Your task to perform on an android device: all mails in gmail Image 0: 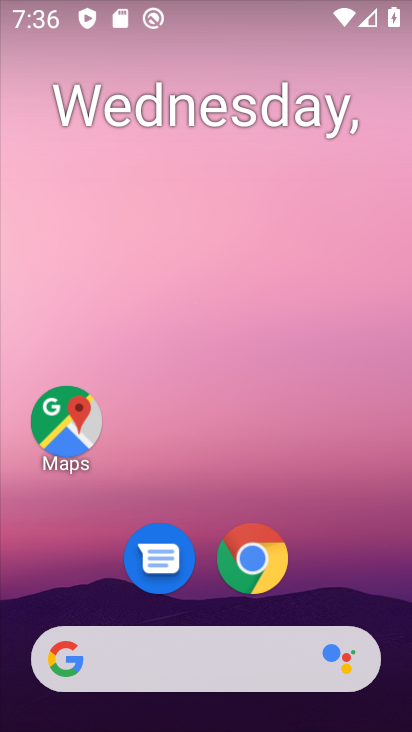
Step 0: drag from (206, 132) to (207, 38)
Your task to perform on an android device: all mails in gmail Image 1: 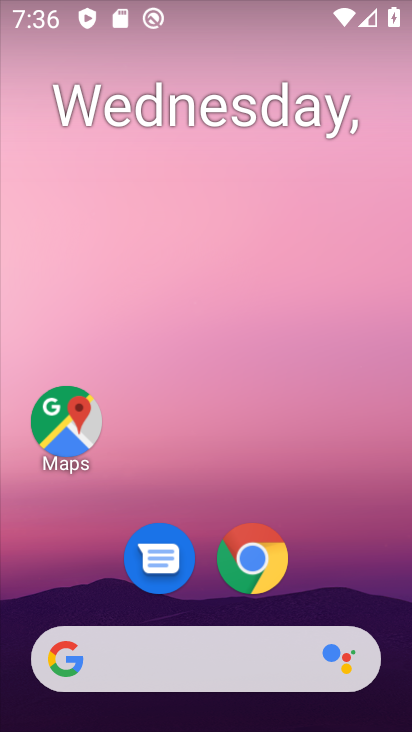
Step 1: drag from (209, 582) to (220, 99)
Your task to perform on an android device: all mails in gmail Image 2: 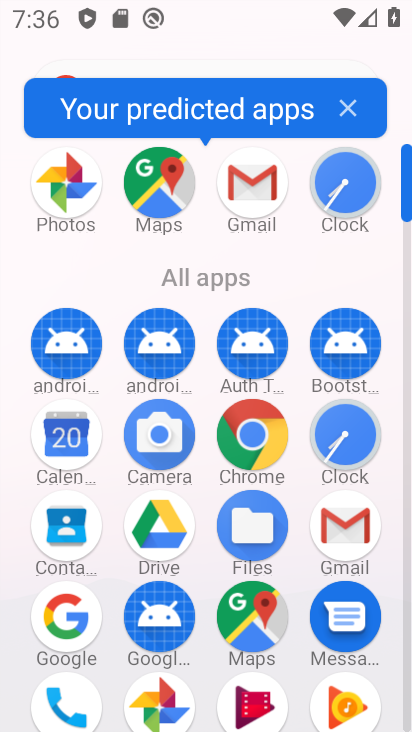
Step 2: click (246, 171)
Your task to perform on an android device: all mails in gmail Image 3: 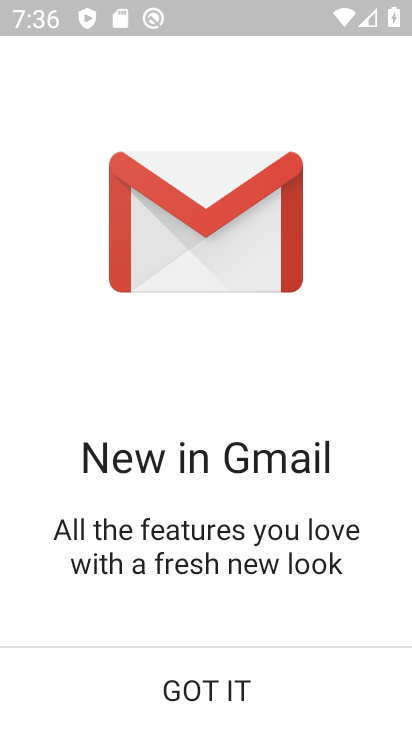
Step 3: click (206, 697)
Your task to perform on an android device: all mails in gmail Image 4: 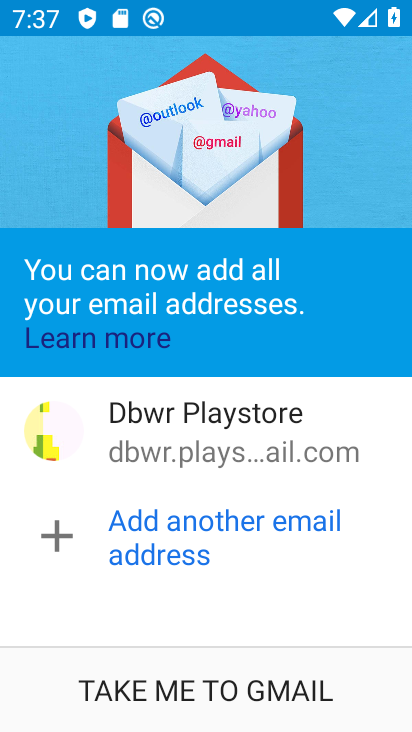
Step 4: click (216, 705)
Your task to perform on an android device: all mails in gmail Image 5: 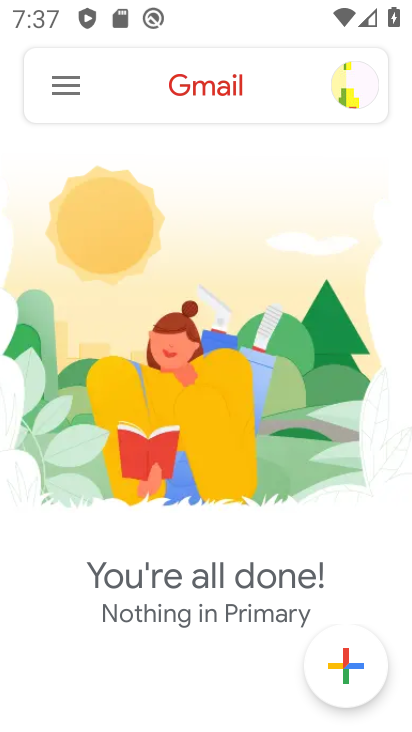
Step 5: click (63, 90)
Your task to perform on an android device: all mails in gmail Image 6: 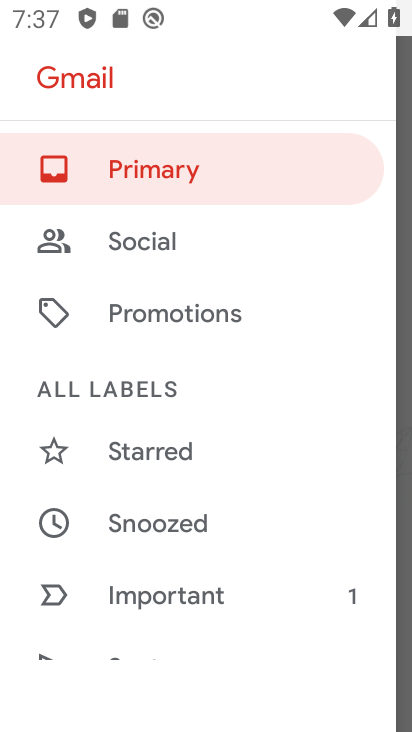
Step 6: drag from (158, 603) to (204, 107)
Your task to perform on an android device: all mails in gmail Image 7: 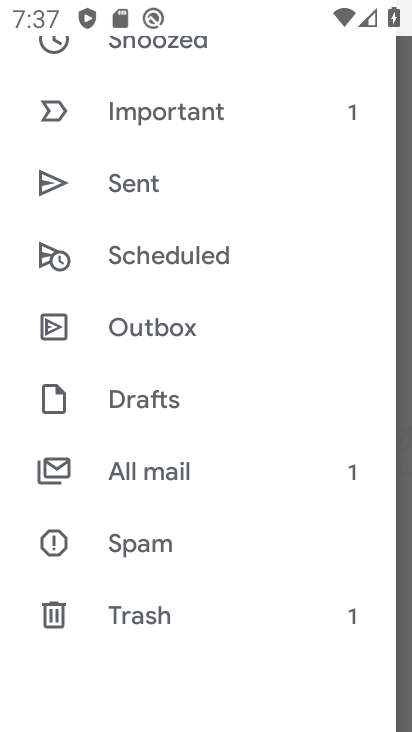
Step 7: click (175, 469)
Your task to perform on an android device: all mails in gmail Image 8: 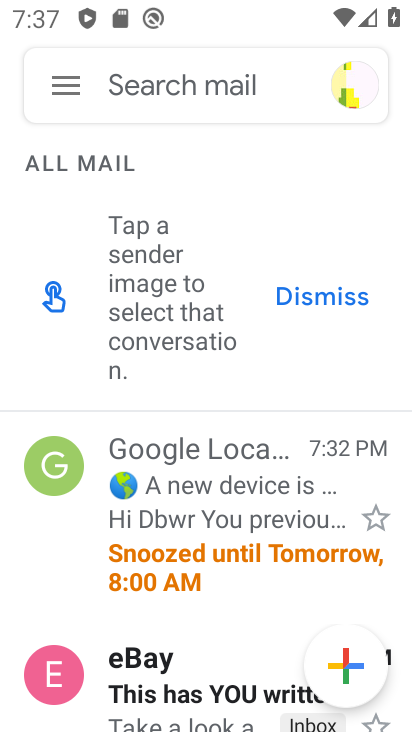
Step 8: task complete